Your task to perform on an android device: Go to settings Image 0: 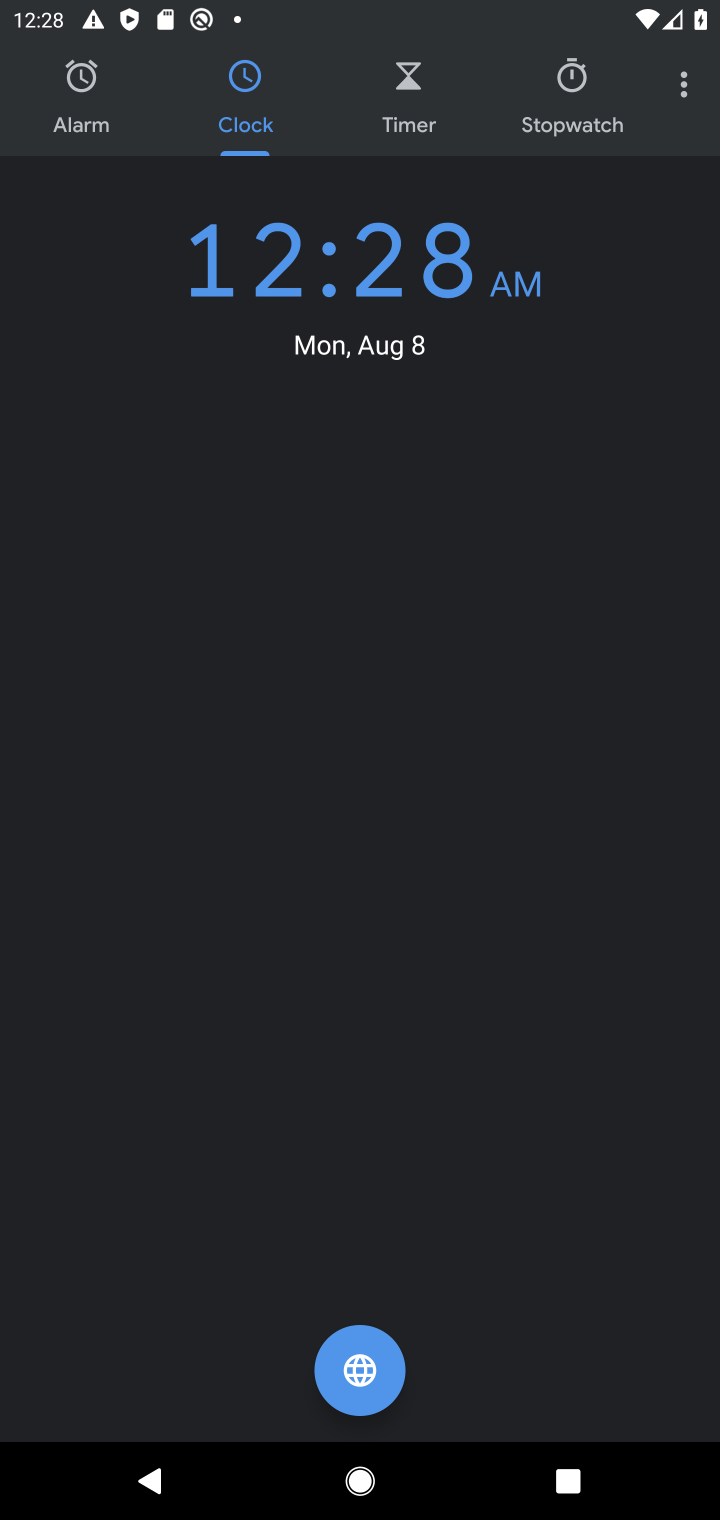
Step 0: press home button
Your task to perform on an android device: Go to settings Image 1: 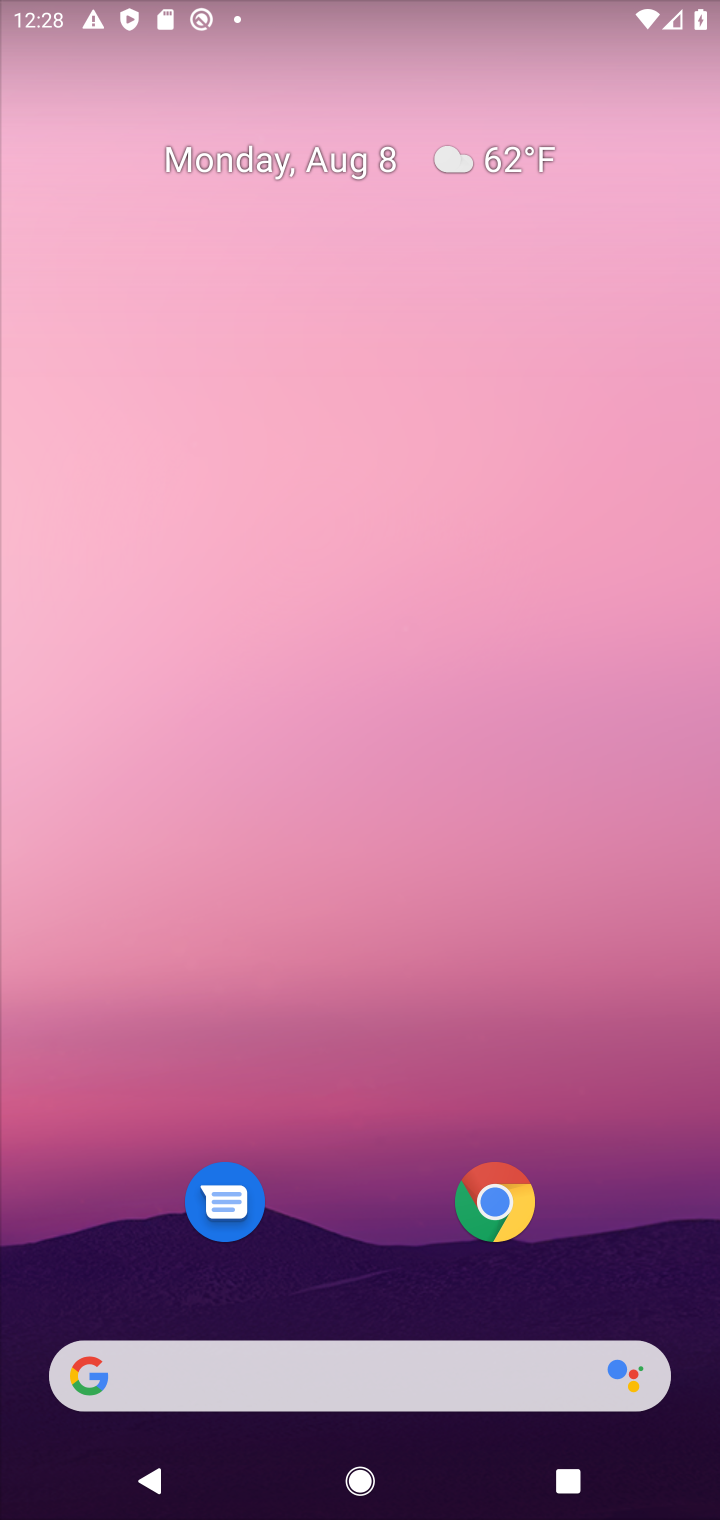
Step 1: click (338, 230)
Your task to perform on an android device: Go to settings Image 2: 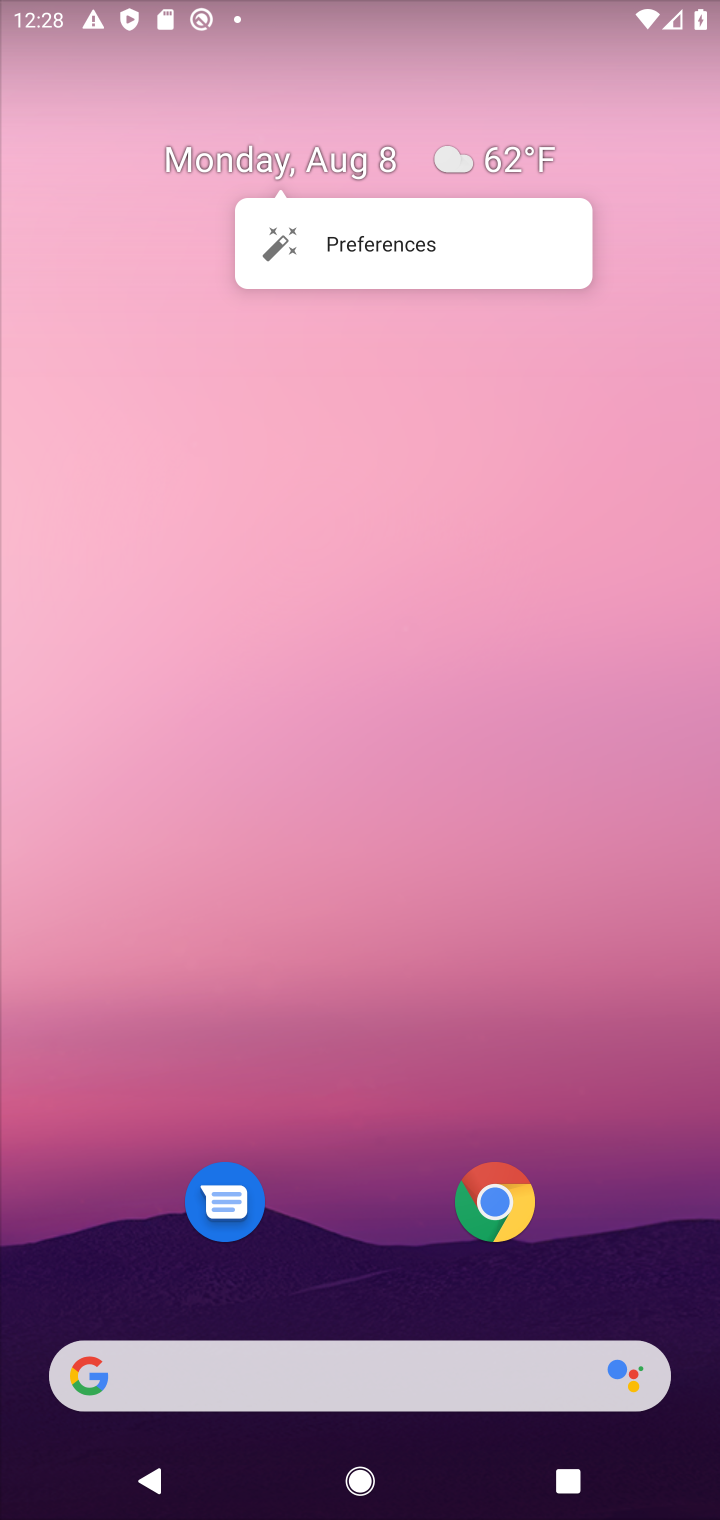
Step 2: drag from (339, 1096) to (316, 156)
Your task to perform on an android device: Go to settings Image 3: 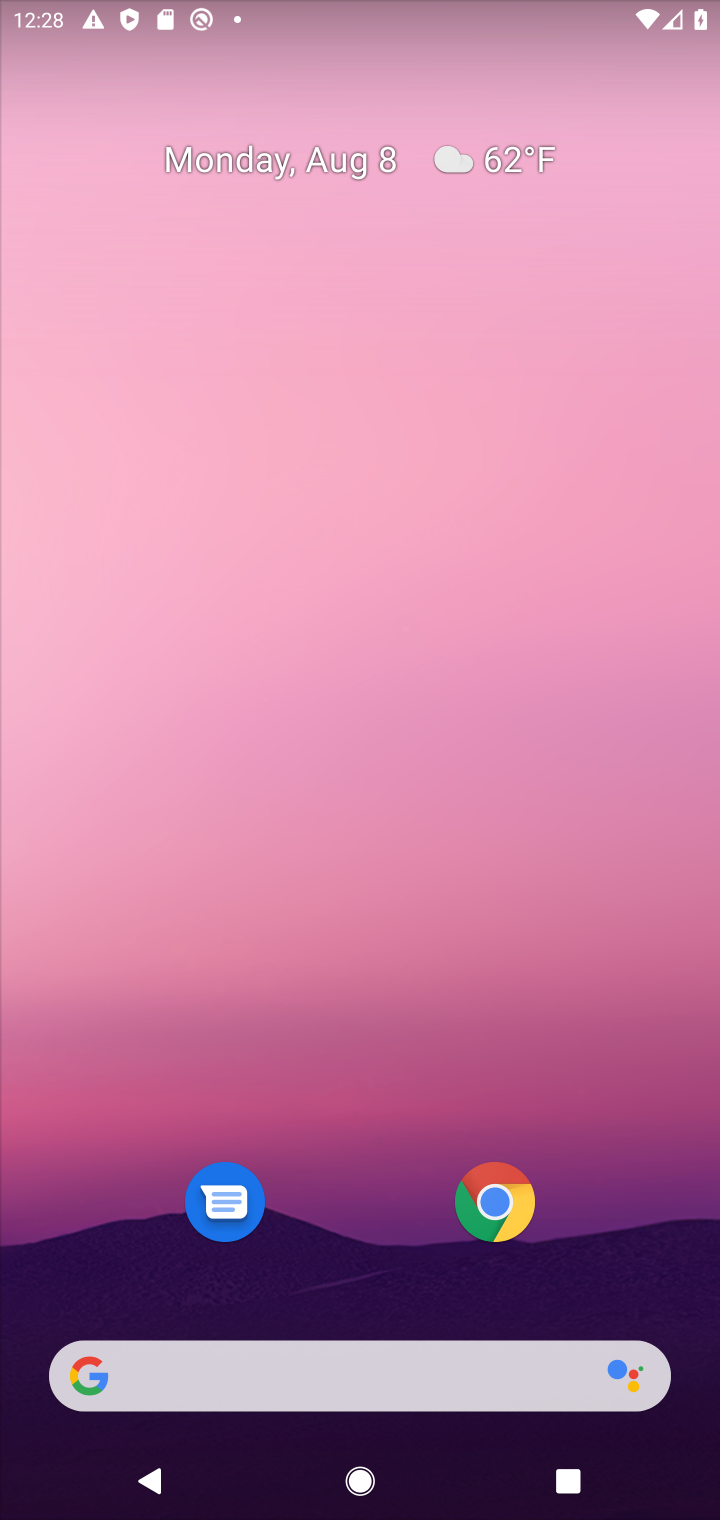
Step 3: drag from (335, 1156) to (277, 562)
Your task to perform on an android device: Go to settings Image 4: 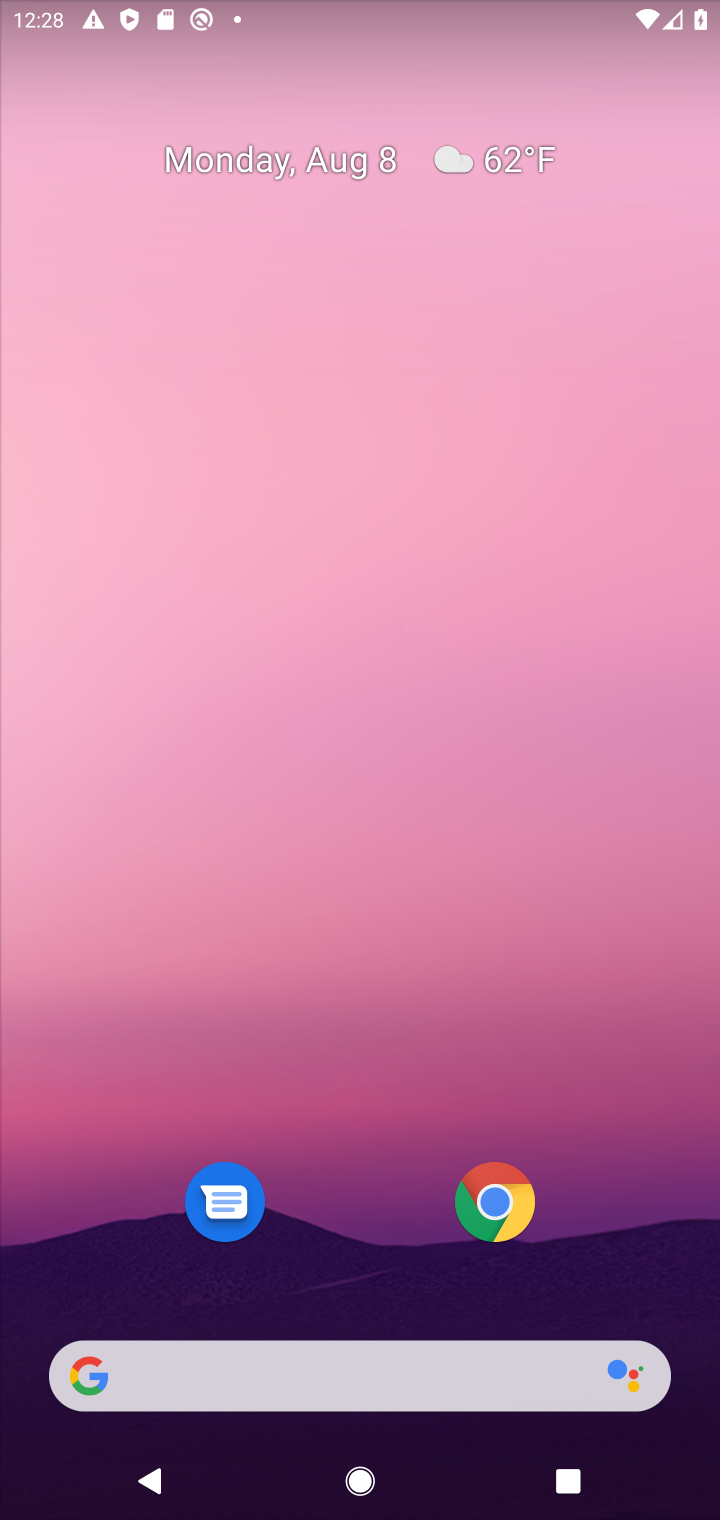
Step 4: click (306, 90)
Your task to perform on an android device: Go to settings Image 5: 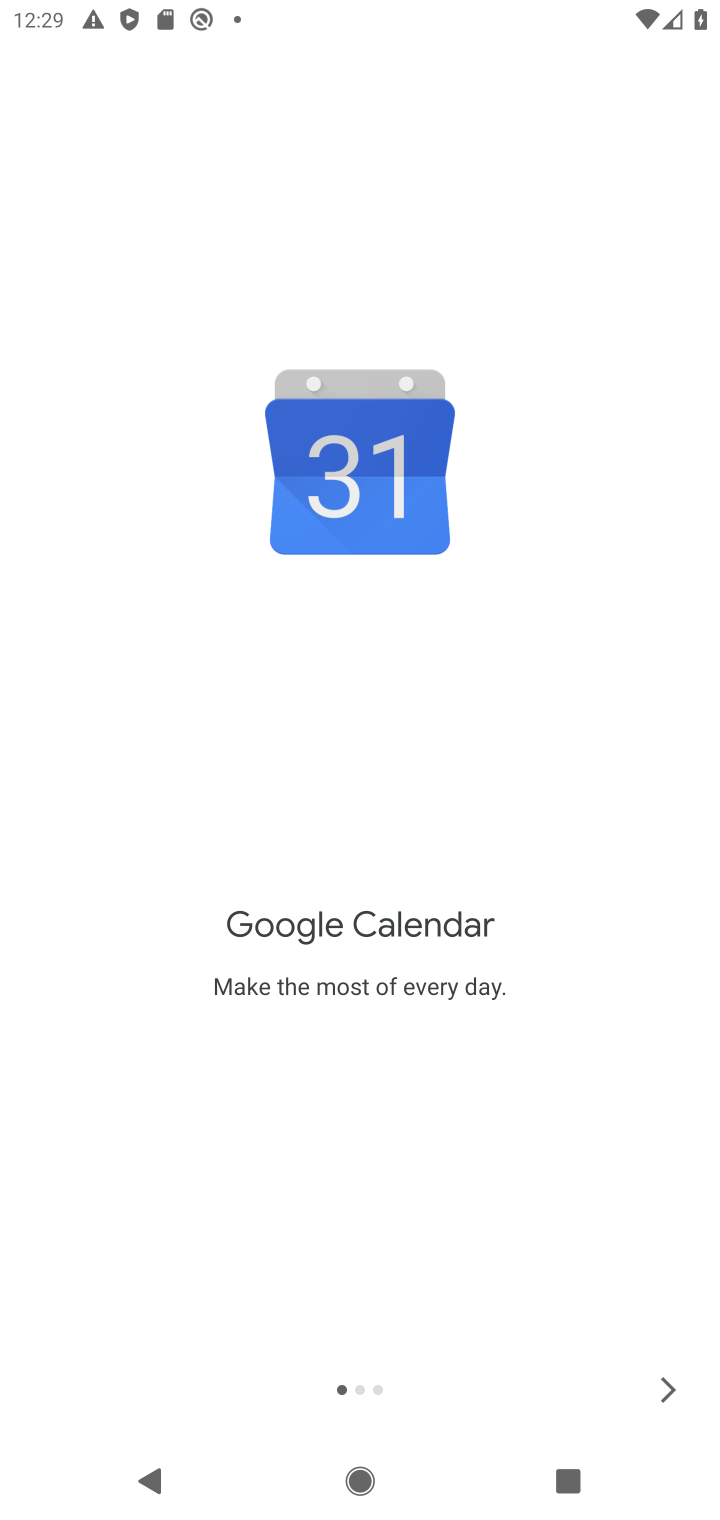
Step 5: click (662, 1412)
Your task to perform on an android device: Go to settings Image 6: 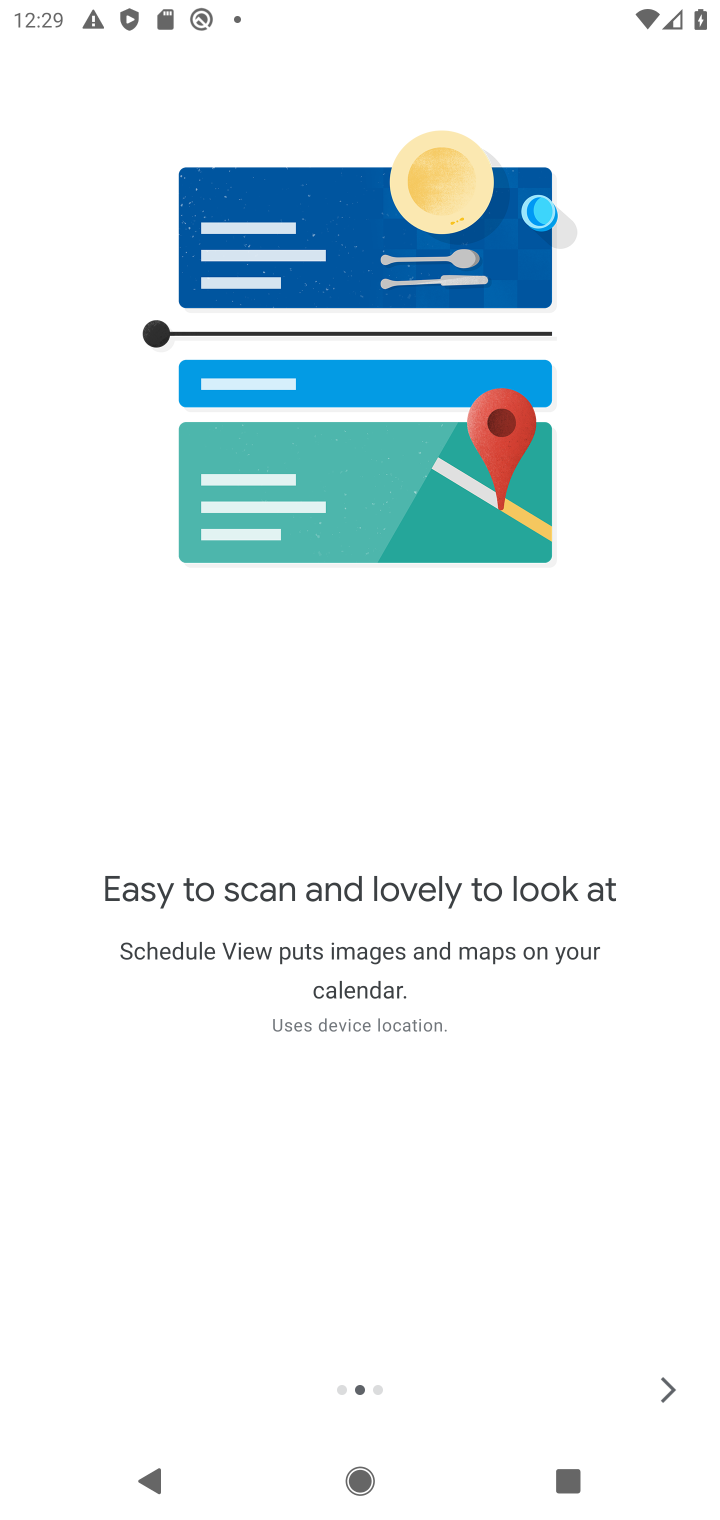
Step 6: click (662, 1396)
Your task to perform on an android device: Go to settings Image 7: 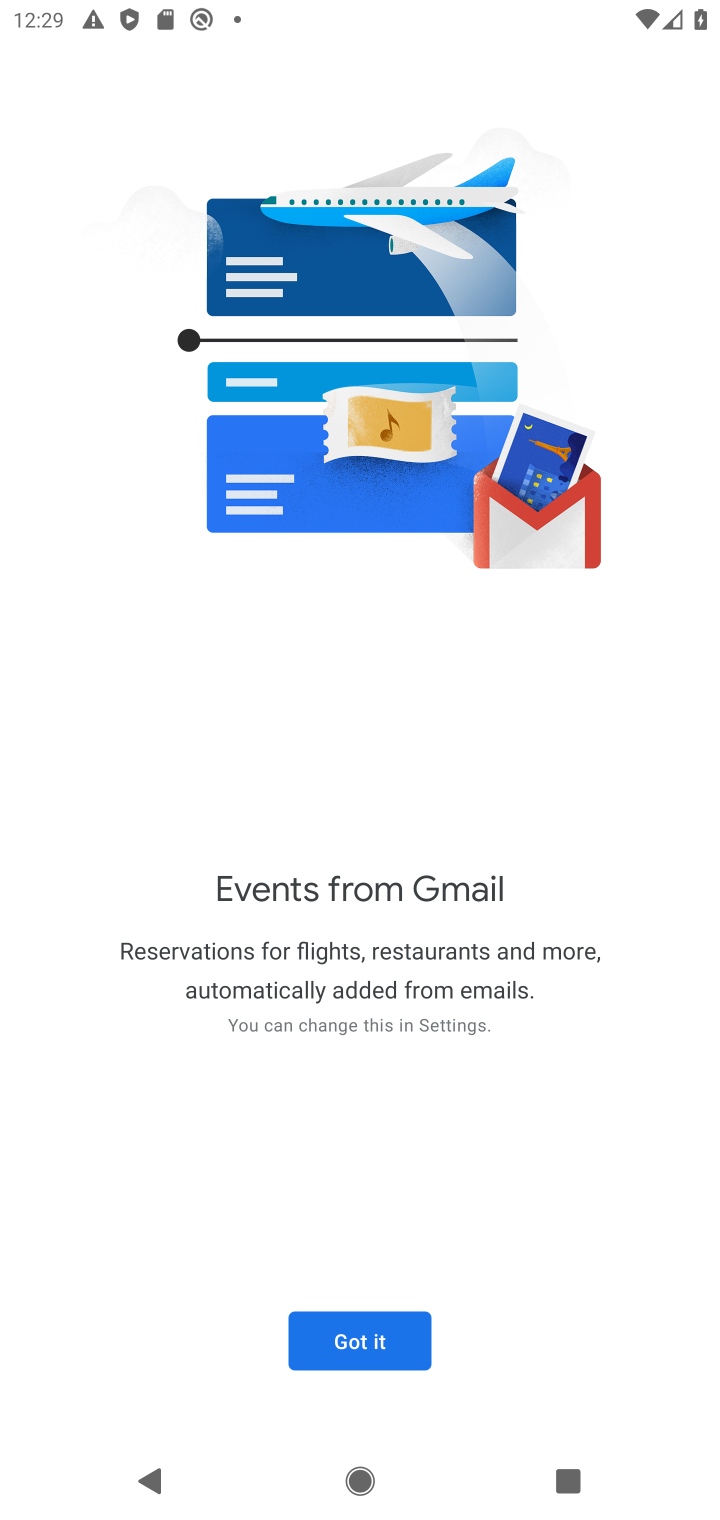
Step 7: click (377, 1330)
Your task to perform on an android device: Go to settings Image 8: 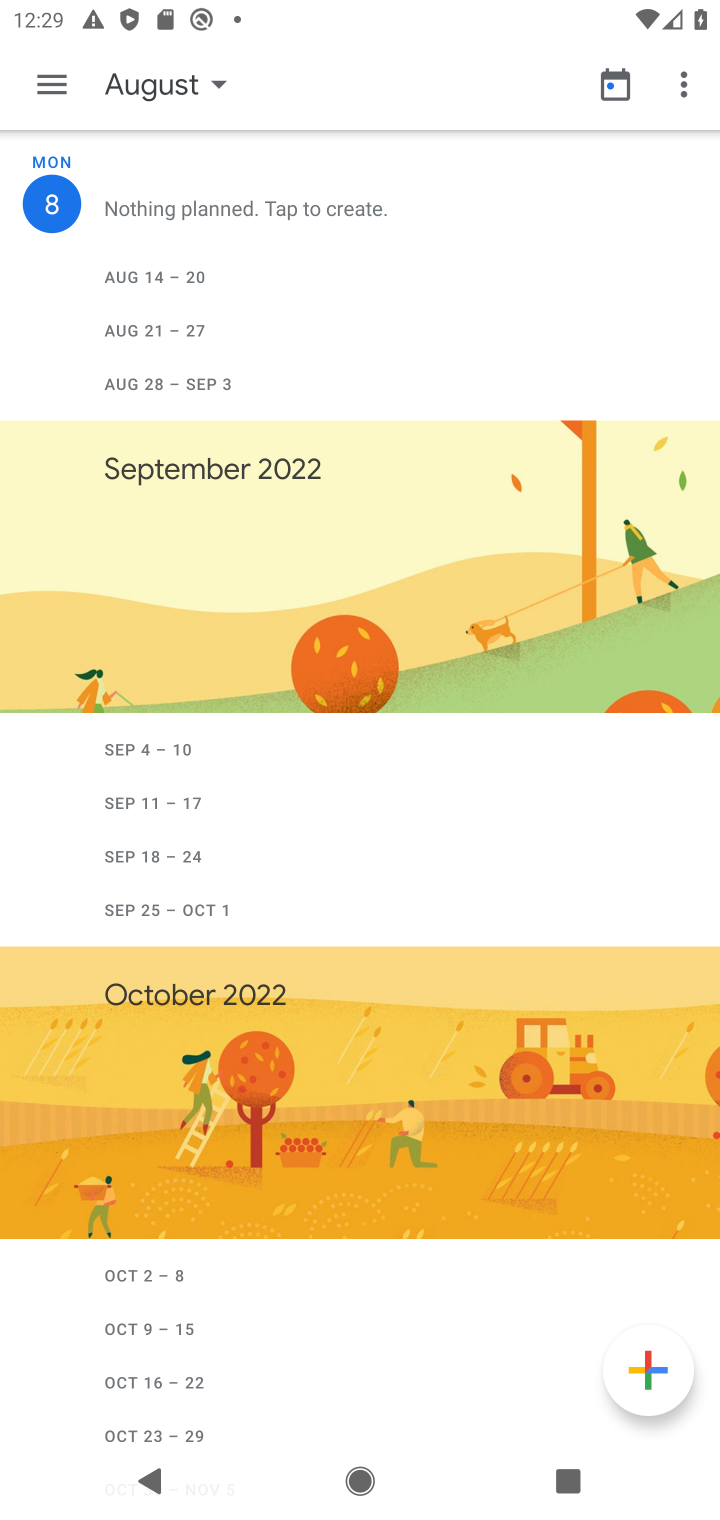
Step 8: press back button
Your task to perform on an android device: Go to settings Image 9: 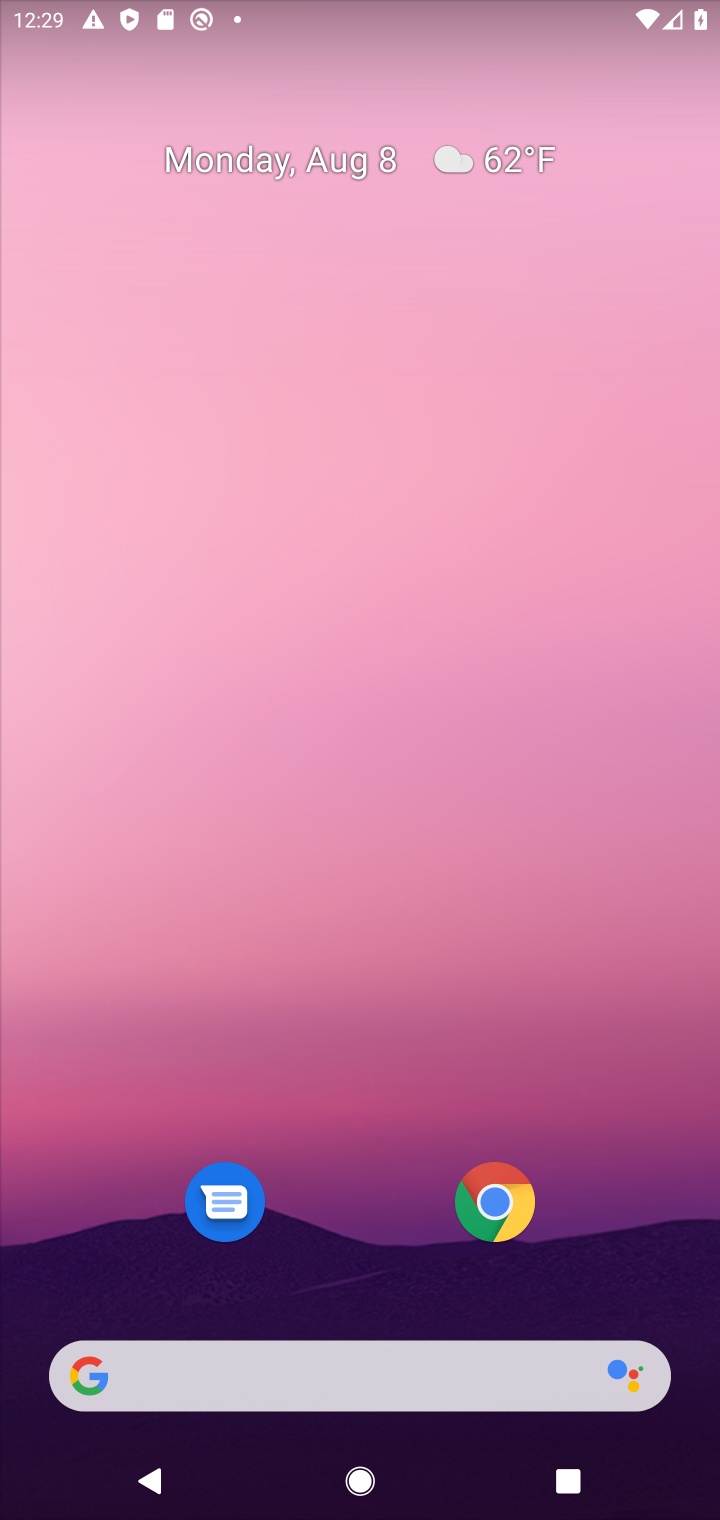
Step 9: drag from (332, 560) to (332, 465)
Your task to perform on an android device: Go to settings Image 10: 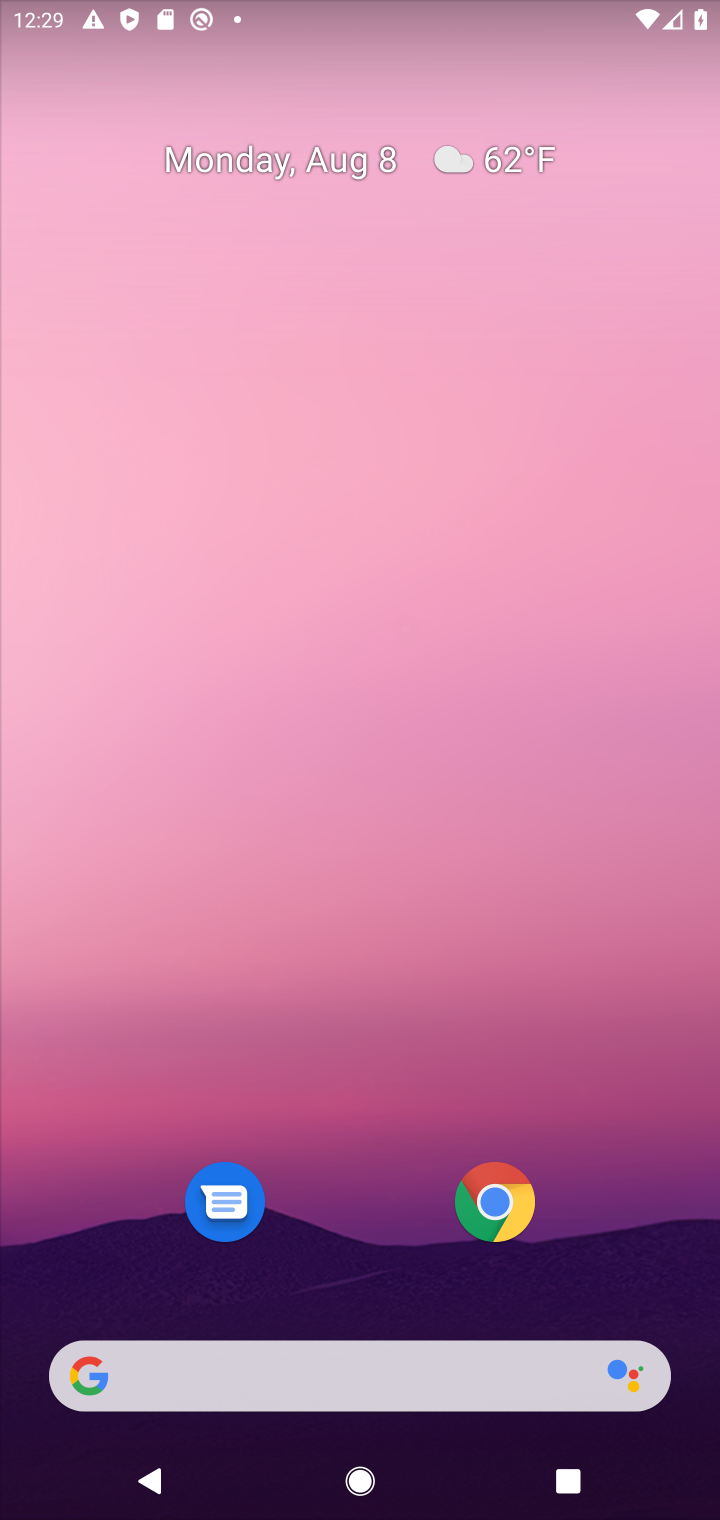
Step 10: click (303, 546)
Your task to perform on an android device: Go to settings Image 11: 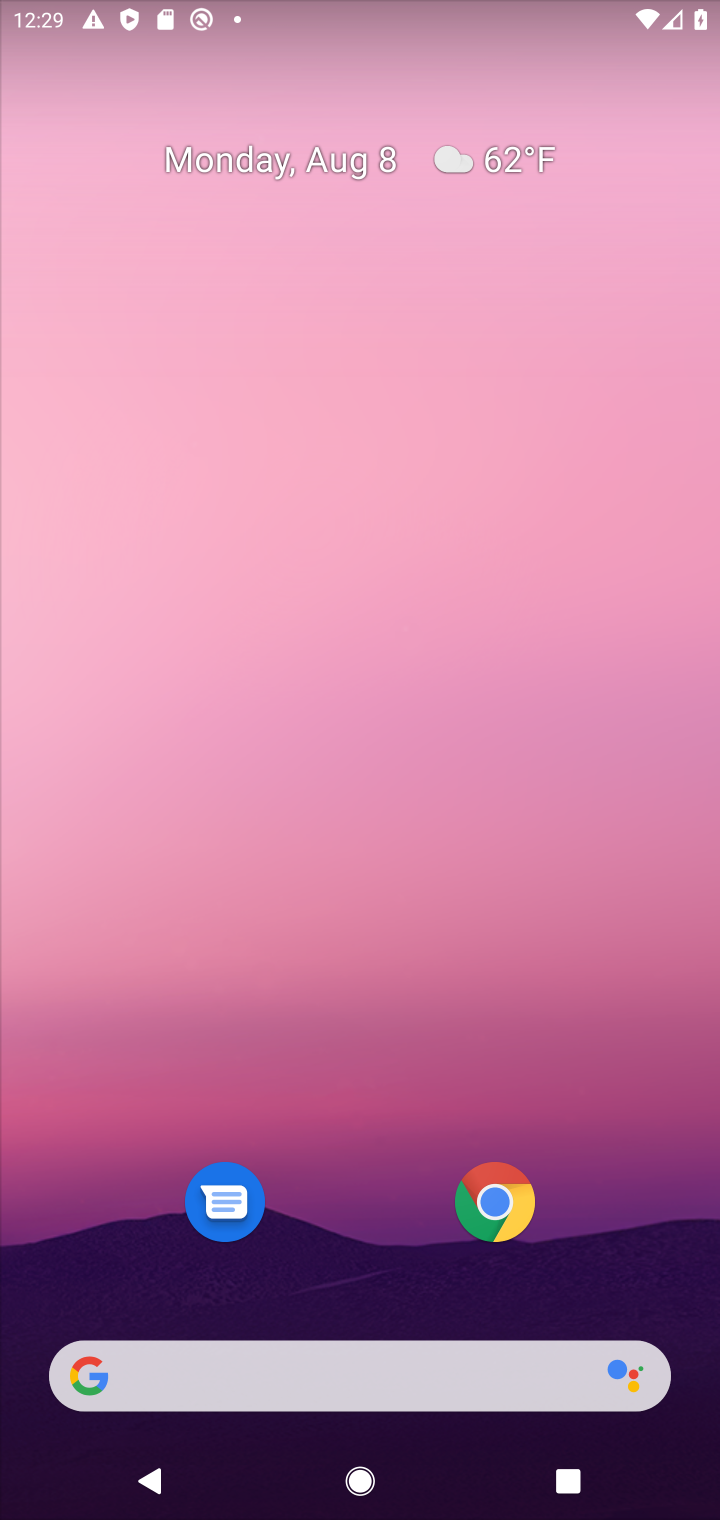
Step 11: drag from (315, 1134) to (315, 140)
Your task to perform on an android device: Go to settings Image 12: 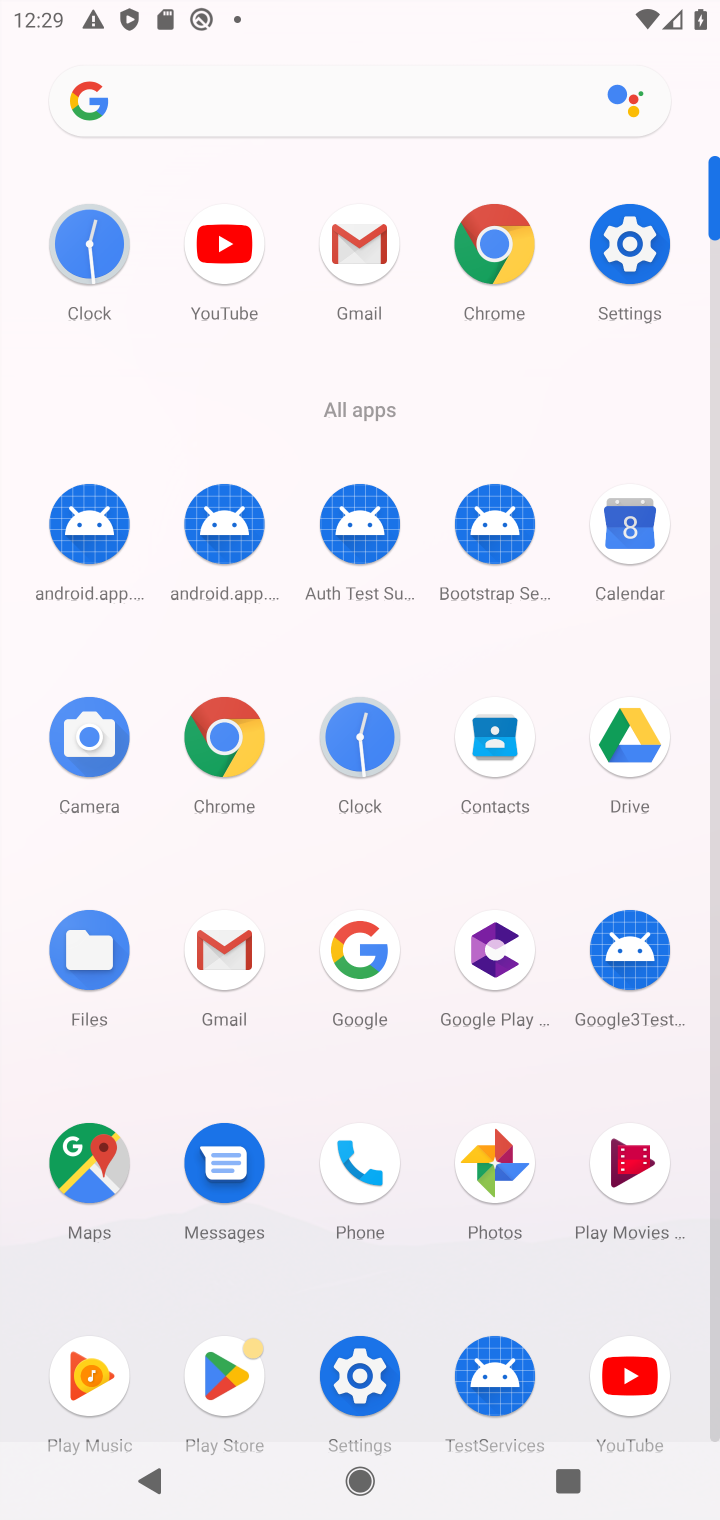
Step 12: click (635, 224)
Your task to perform on an android device: Go to settings Image 13: 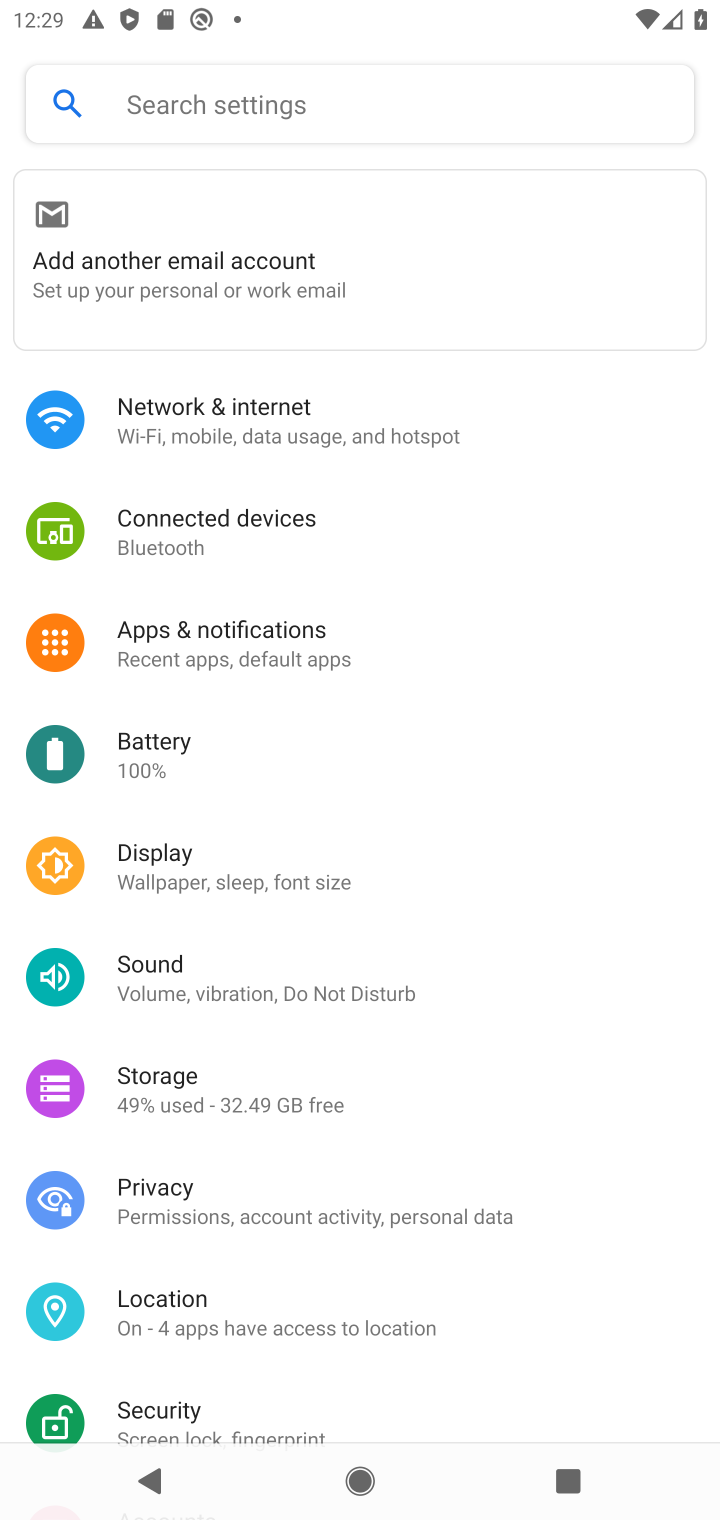
Step 13: task complete